Your task to perform on an android device: toggle location history Image 0: 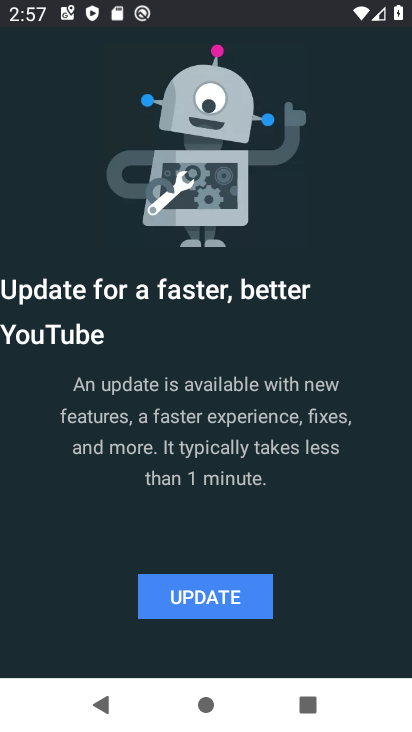
Step 0: press home button
Your task to perform on an android device: toggle location history Image 1: 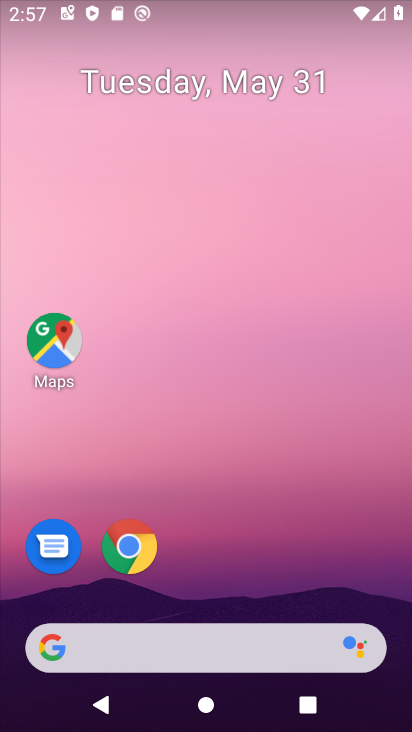
Step 1: drag from (238, 572) to (158, 9)
Your task to perform on an android device: toggle location history Image 2: 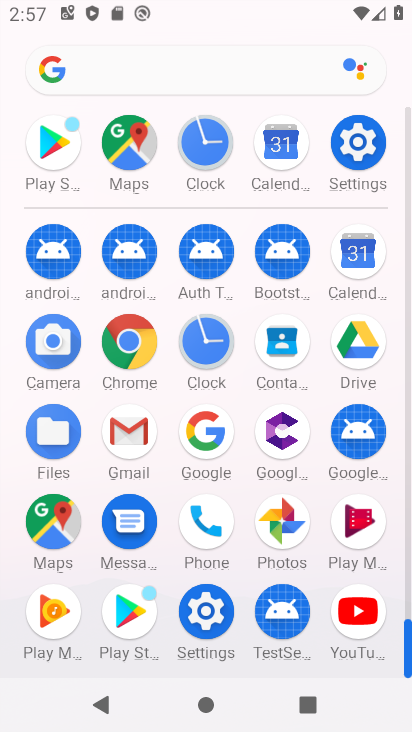
Step 2: click (347, 160)
Your task to perform on an android device: toggle location history Image 3: 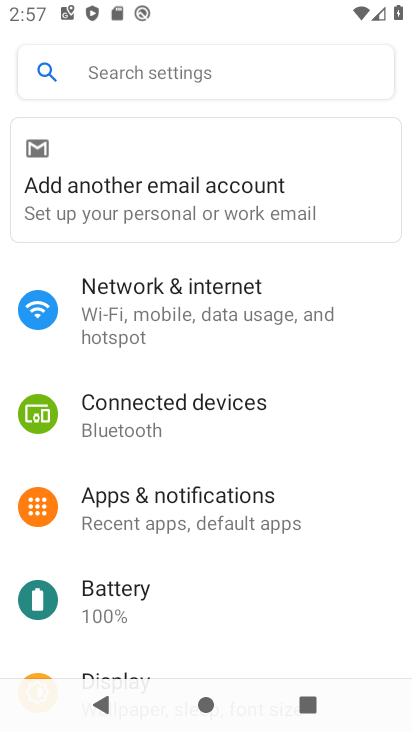
Step 3: drag from (222, 583) to (183, 233)
Your task to perform on an android device: toggle location history Image 4: 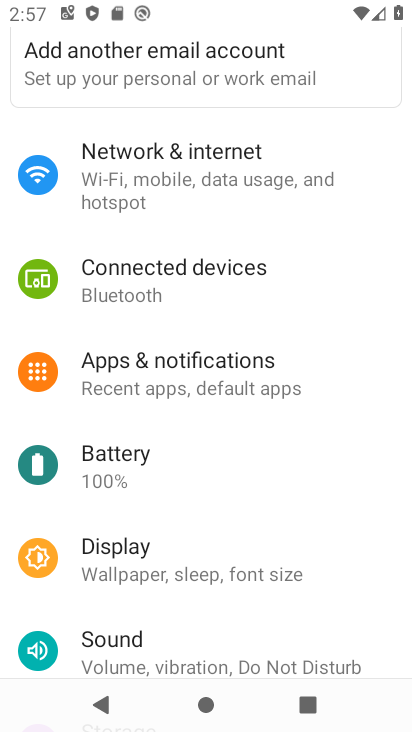
Step 4: drag from (211, 477) to (228, 174)
Your task to perform on an android device: toggle location history Image 5: 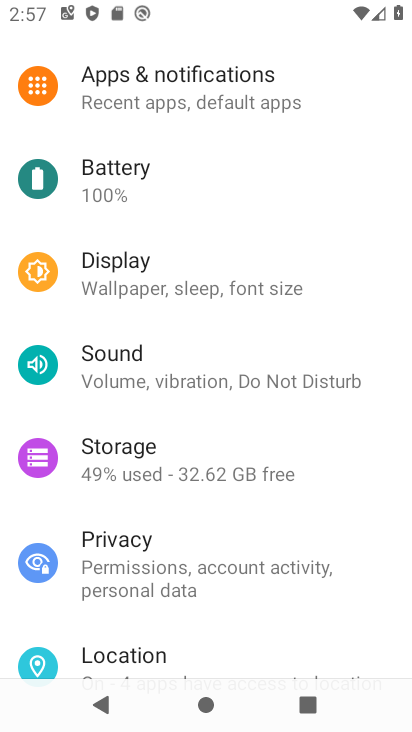
Step 5: drag from (234, 481) to (238, 225)
Your task to perform on an android device: toggle location history Image 6: 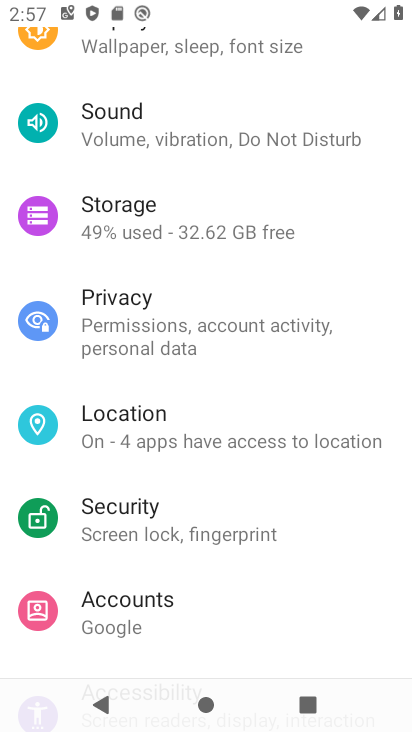
Step 6: click (233, 422)
Your task to perform on an android device: toggle location history Image 7: 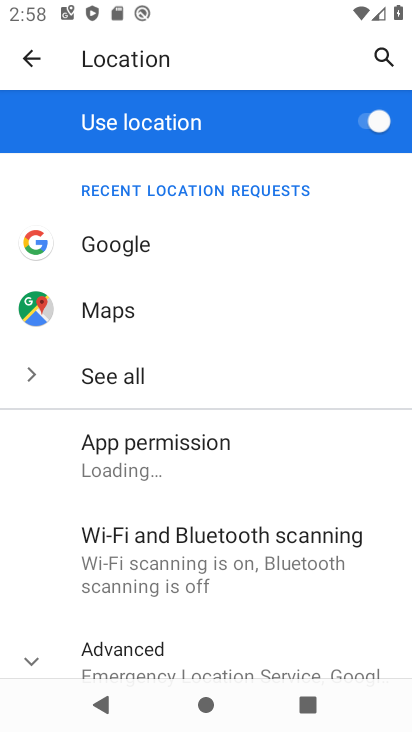
Step 7: drag from (241, 607) to (236, 222)
Your task to perform on an android device: toggle location history Image 8: 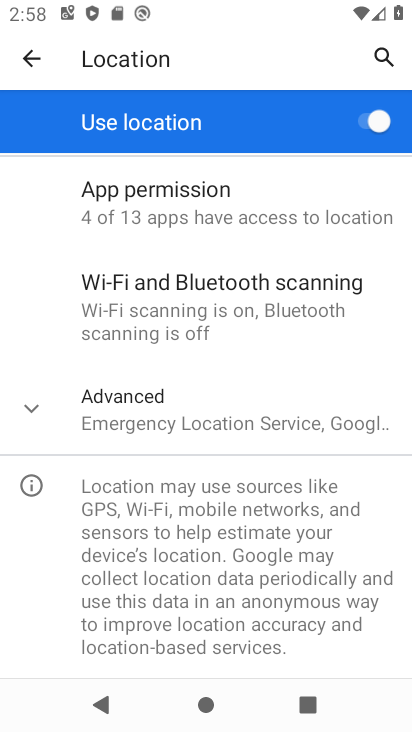
Step 8: click (35, 407)
Your task to perform on an android device: toggle location history Image 9: 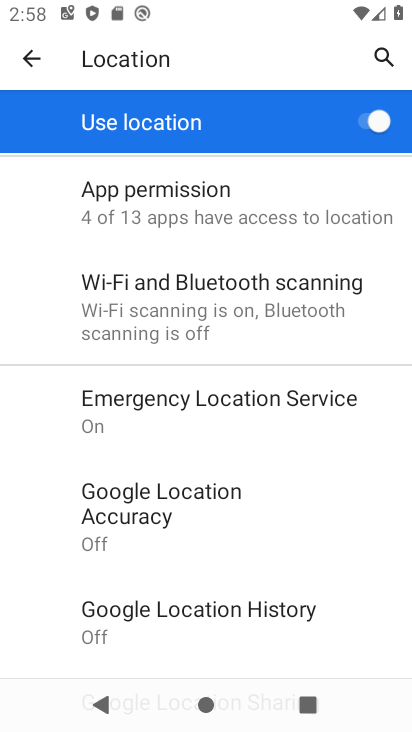
Step 9: click (217, 619)
Your task to perform on an android device: toggle location history Image 10: 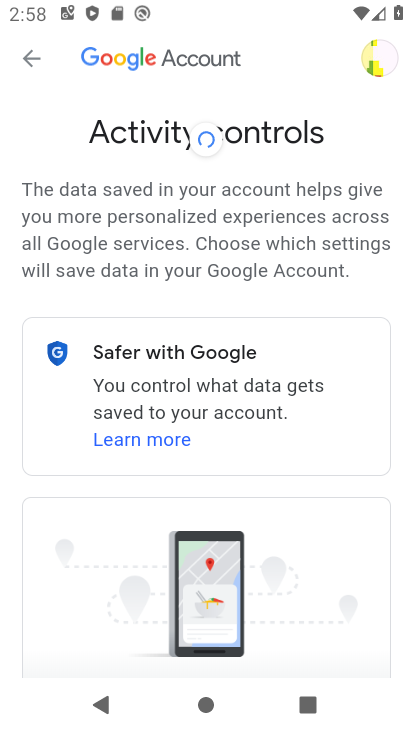
Step 10: drag from (288, 549) to (248, 220)
Your task to perform on an android device: toggle location history Image 11: 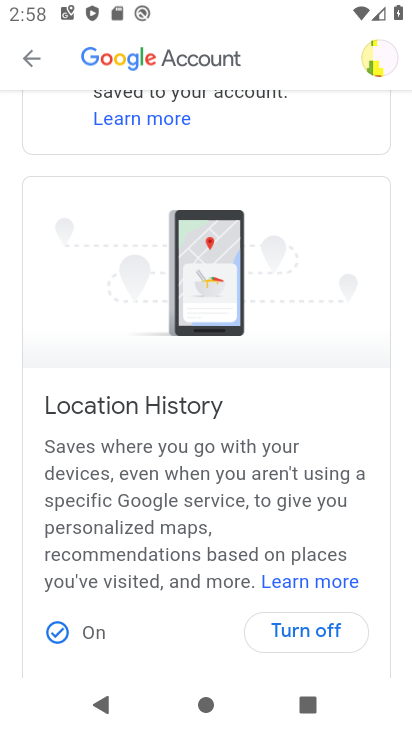
Step 11: click (307, 625)
Your task to perform on an android device: toggle location history Image 12: 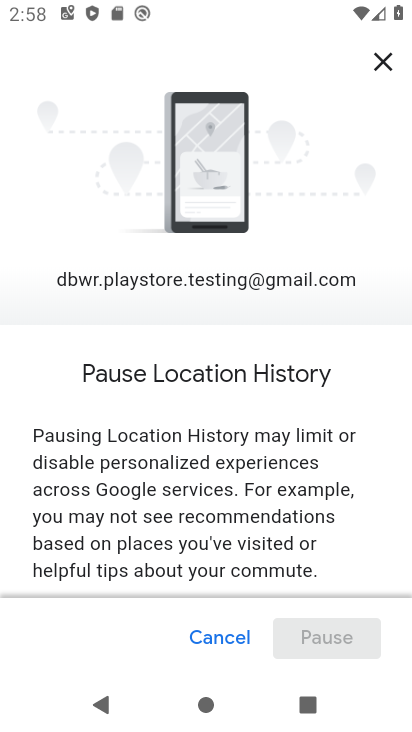
Step 12: drag from (300, 540) to (269, 180)
Your task to perform on an android device: toggle location history Image 13: 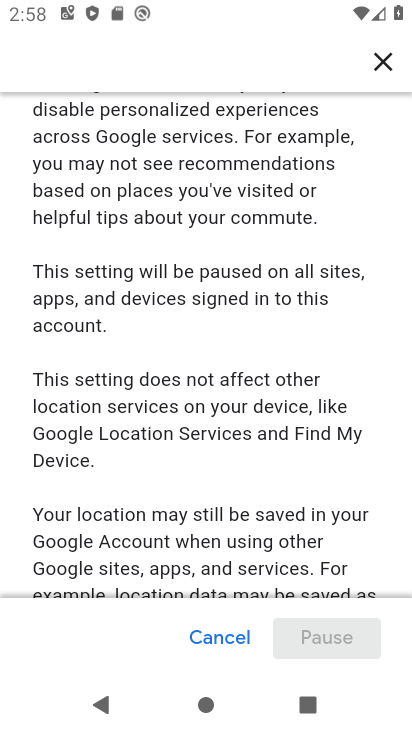
Step 13: drag from (249, 490) to (265, 160)
Your task to perform on an android device: toggle location history Image 14: 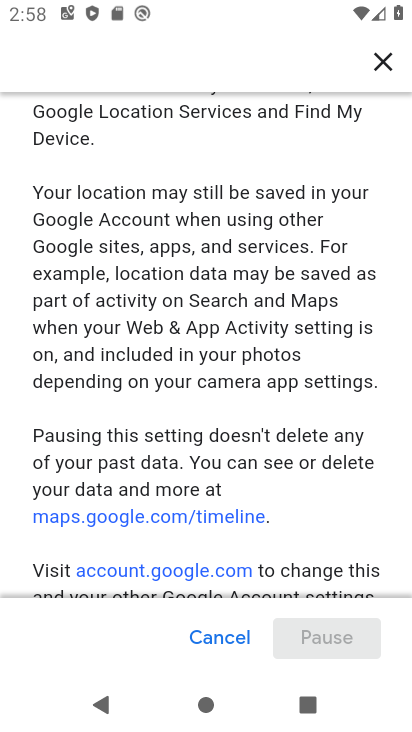
Step 14: drag from (332, 483) to (314, 214)
Your task to perform on an android device: toggle location history Image 15: 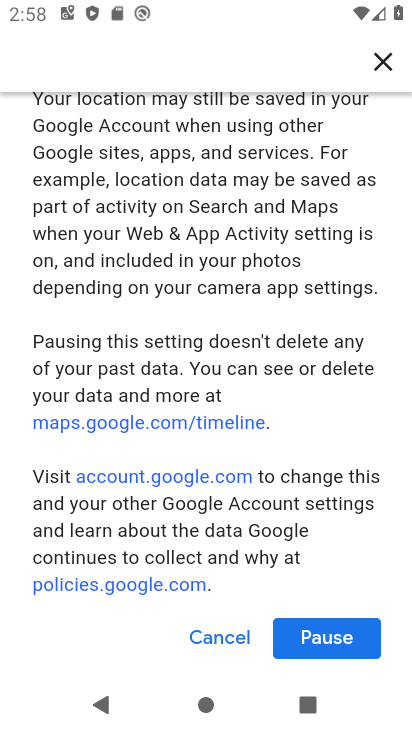
Step 15: click (353, 634)
Your task to perform on an android device: toggle location history Image 16: 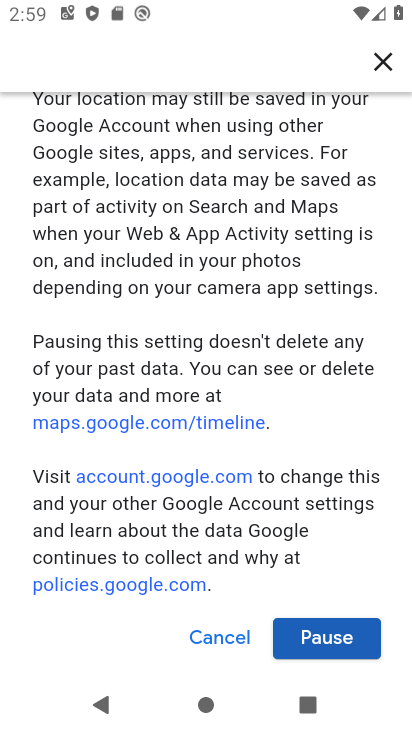
Step 16: click (358, 639)
Your task to perform on an android device: toggle location history Image 17: 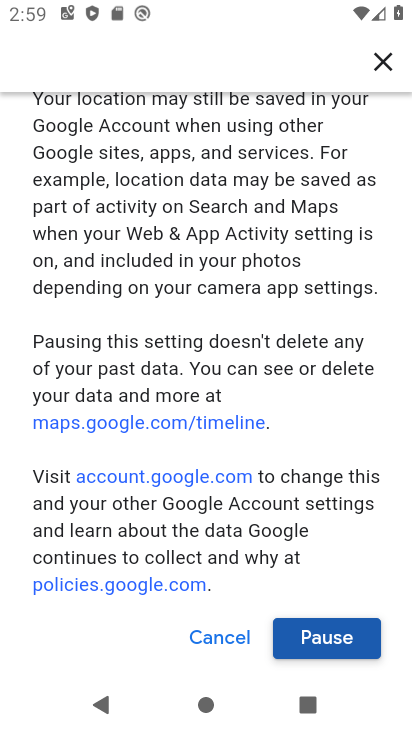
Step 17: click (358, 644)
Your task to perform on an android device: toggle location history Image 18: 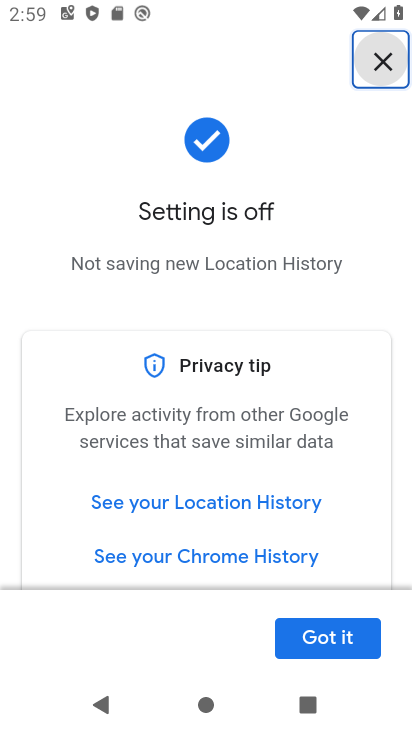
Step 18: click (351, 632)
Your task to perform on an android device: toggle location history Image 19: 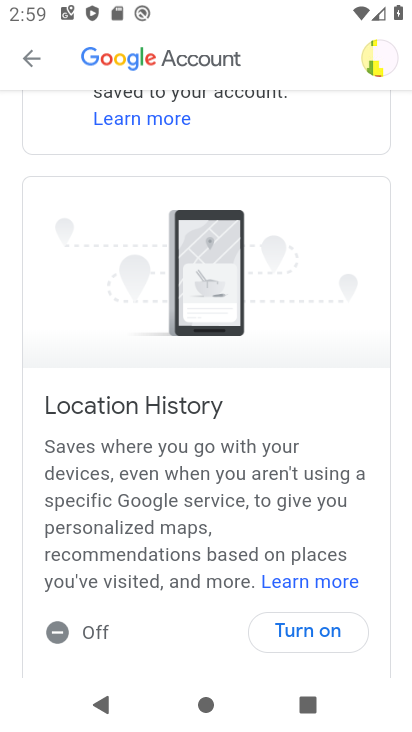
Step 19: task complete